Your task to perform on an android device: change your default location settings in chrome Image 0: 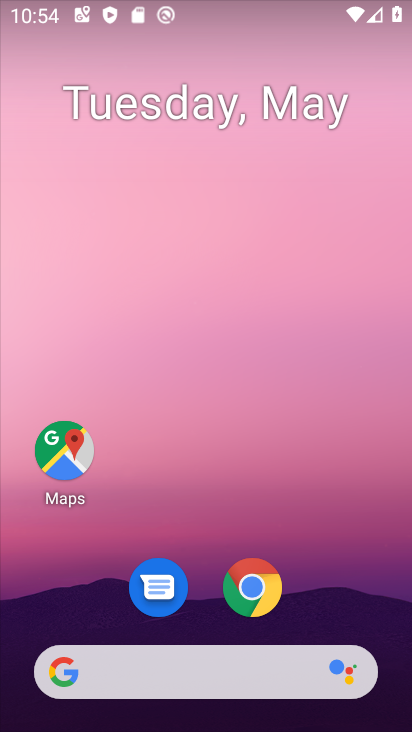
Step 0: drag from (319, 537) to (271, 42)
Your task to perform on an android device: change your default location settings in chrome Image 1: 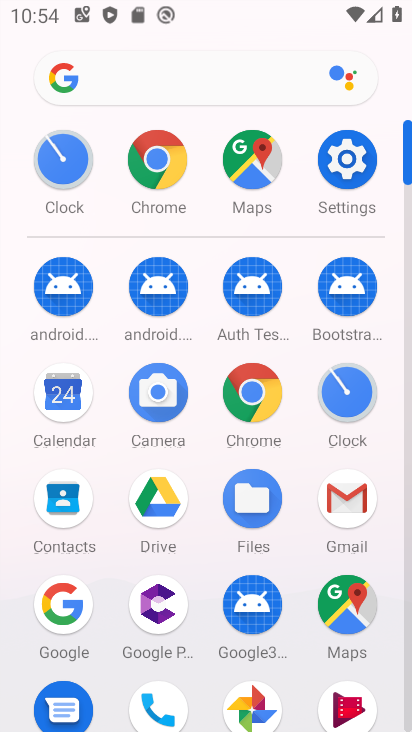
Step 1: drag from (14, 592) to (29, 279)
Your task to perform on an android device: change your default location settings in chrome Image 2: 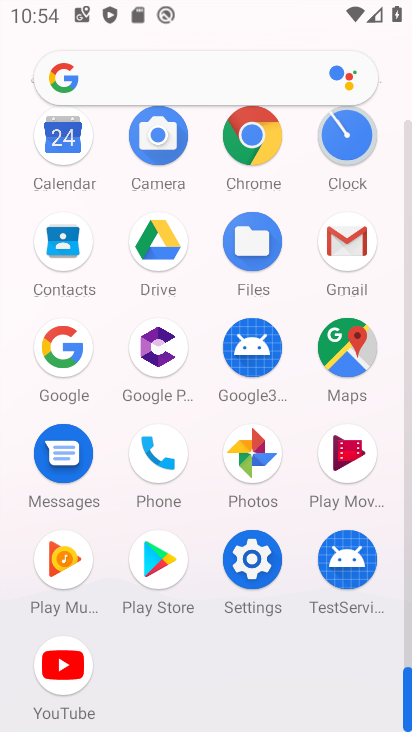
Step 2: click (248, 133)
Your task to perform on an android device: change your default location settings in chrome Image 3: 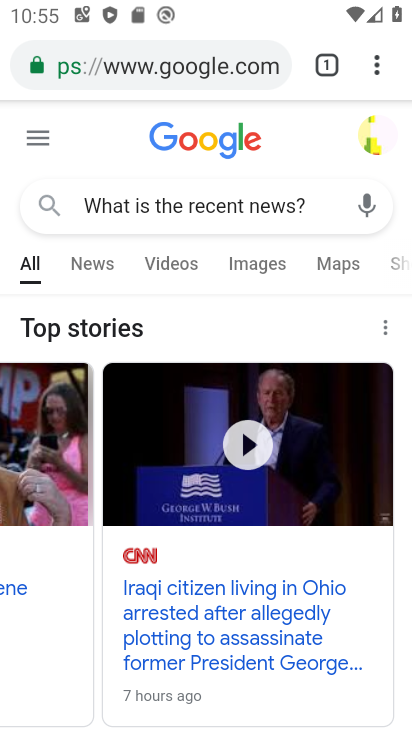
Step 3: drag from (372, 65) to (195, 627)
Your task to perform on an android device: change your default location settings in chrome Image 4: 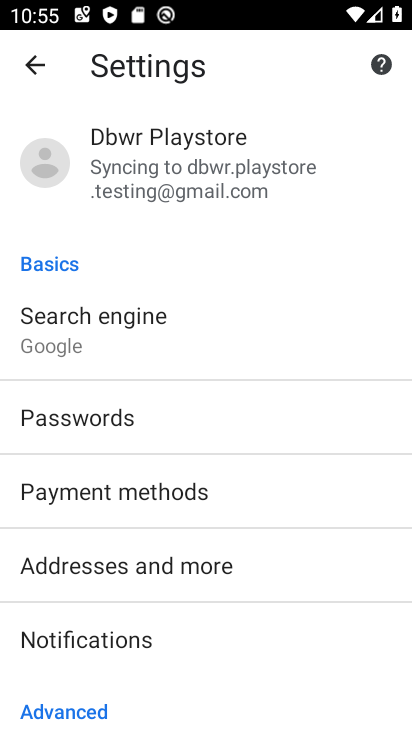
Step 4: drag from (203, 582) to (204, 179)
Your task to perform on an android device: change your default location settings in chrome Image 5: 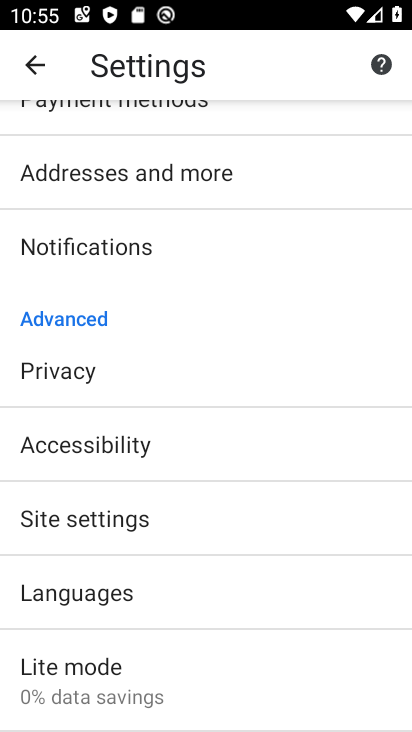
Step 5: drag from (225, 684) to (312, 240)
Your task to perform on an android device: change your default location settings in chrome Image 6: 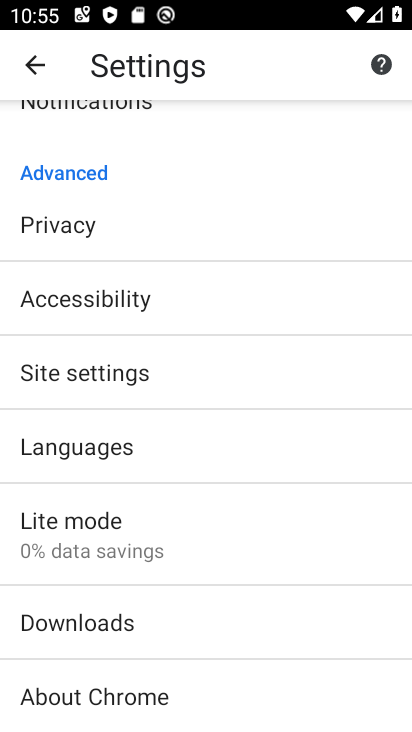
Step 6: click (132, 369)
Your task to perform on an android device: change your default location settings in chrome Image 7: 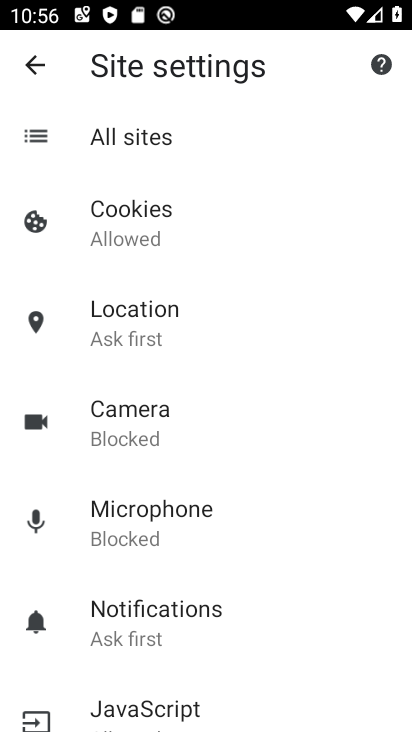
Step 7: click (195, 314)
Your task to perform on an android device: change your default location settings in chrome Image 8: 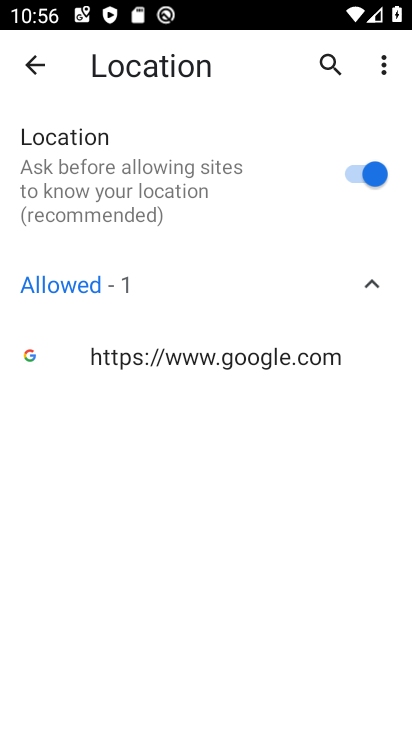
Step 8: click (351, 169)
Your task to perform on an android device: change your default location settings in chrome Image 9: 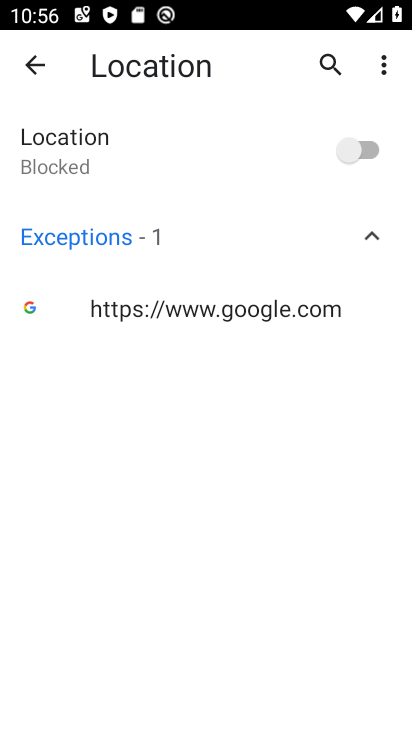
Step 9: task complete